Your task to perform on an android device: Open Google Image 0: 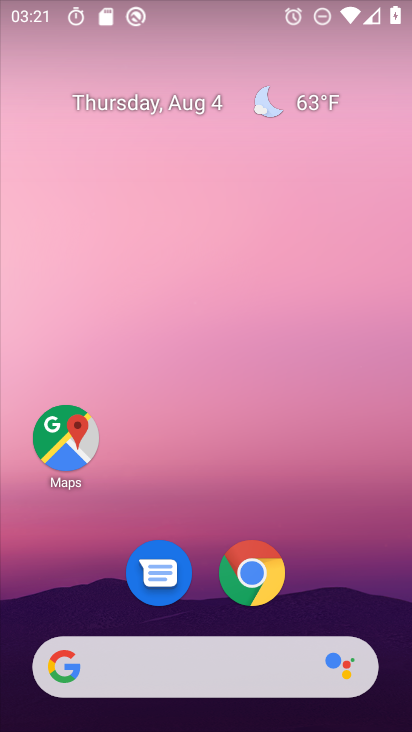
Step 0: drag from (351, 551) to (285, 85)
Your task to perform on an android device: Open Google Image 1: 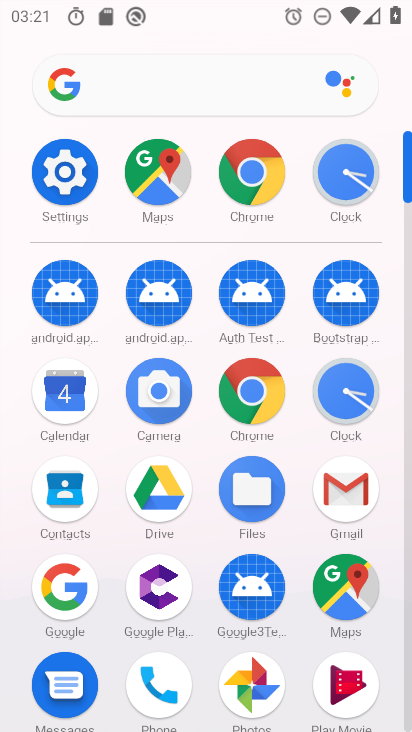
Step 1: click (75, 588)
Your task to perform on an android device: Open Google Image 2: 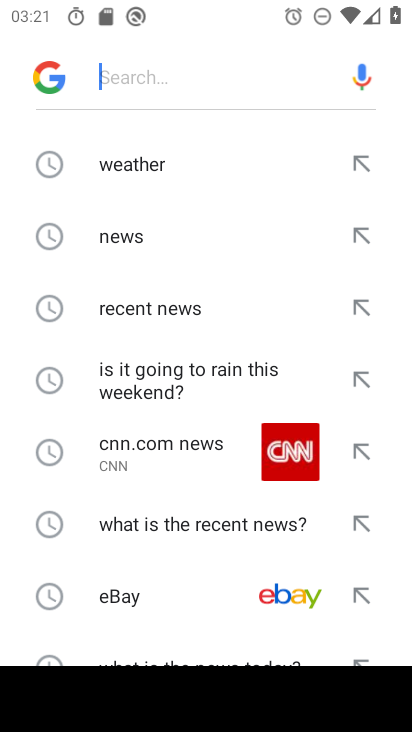
Step 2: task complete